Your task to perform on an android device: Play the last video I watched on Youtube Image 0: 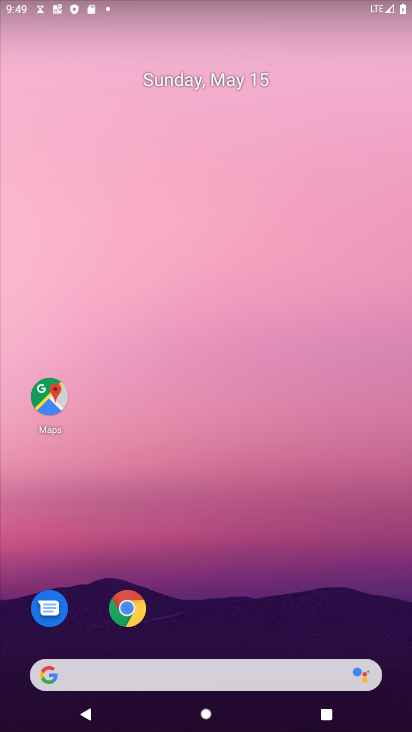
Step 0: drag from (355, 603) to (340, 57)
Your task to perform on an android device: Play the last video I watched on Youtube Image 1: 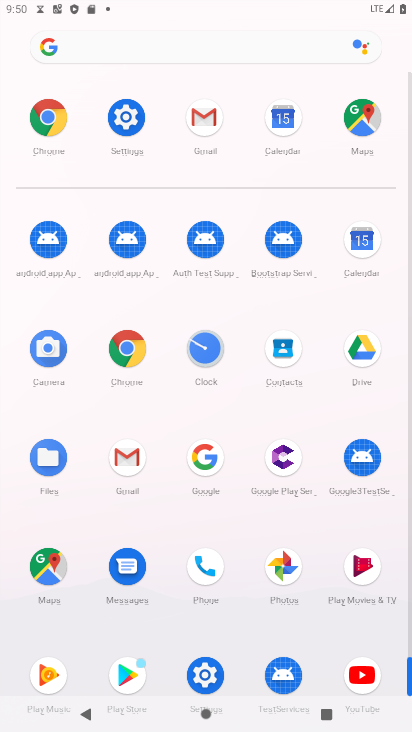
Step 1: click (346, 675)
Your task to perform on an android device: Play the last video I watched on Youtube Image 2: 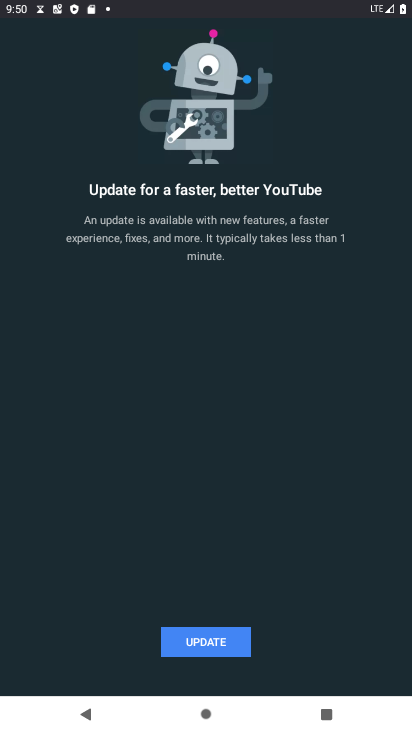
Step 2: click (219, 657)
Your task to perform on an android device: Play the last video I watched on Youtube Image 3: 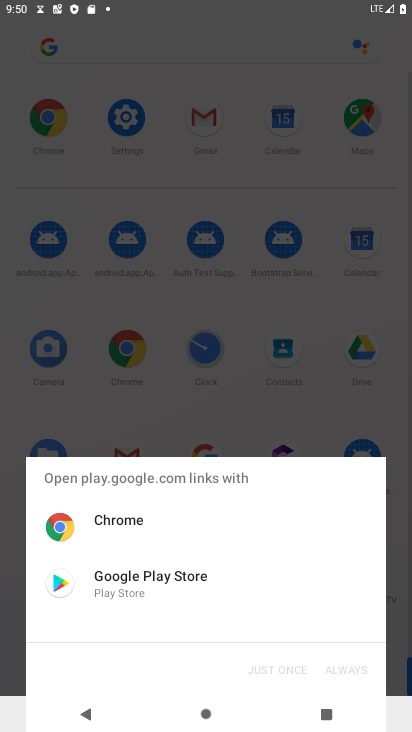
Step 3: click (137, 579)
Your task to perform on an android device: Play the last video I watched on Youtube Image 4: 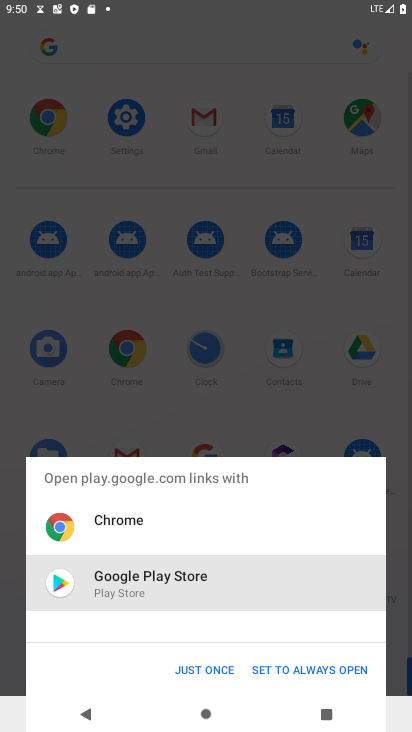
Step 4: click (215, 668)
Your task to perform on an android device: Play the last video I watched on Youtube Image 5: 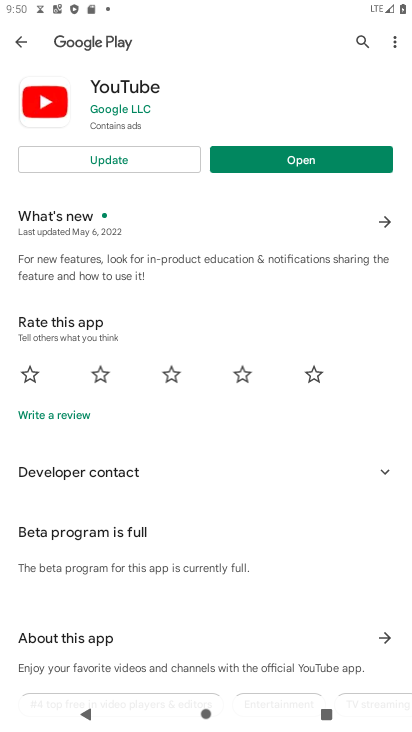
Step 5: click (103, 162)
Your task to perform on an android device: Play the last video I watched on Youtube Image 6: 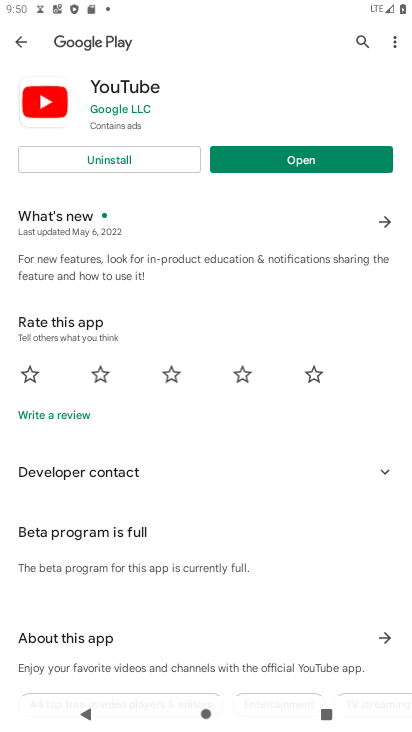
Step 6: click (330, 157)
Your task to perform on an android device: Play the last video I watched on Youtube Image 7: 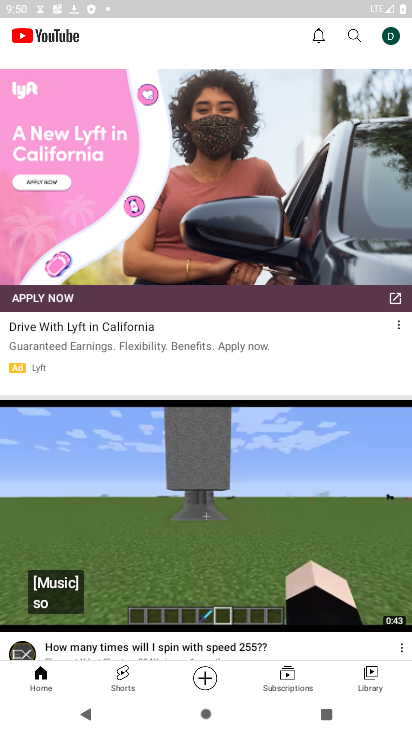
Step 7: task complete